Your task to perform on an android device: Open Wikipedia Image 0: 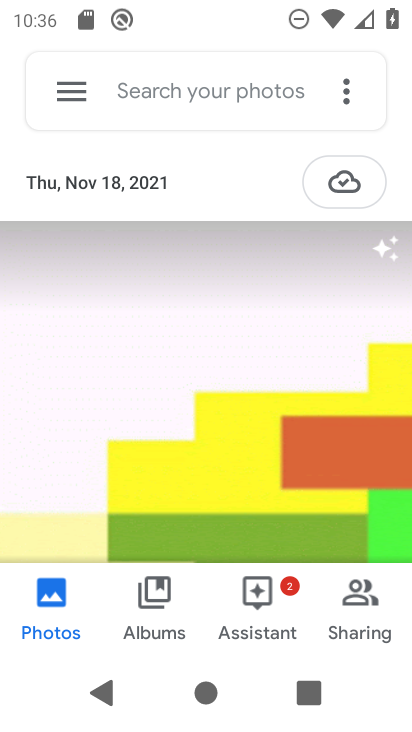
Step 0: press home button
Your task to perform on an android device: Open Wikipedia Image 1: 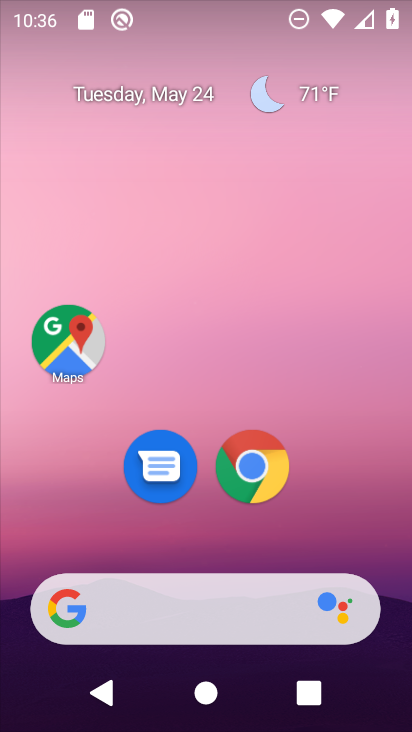
Step 1: drag from (218, 539) to (317, 11)
Your task to perform on an android device: Open Wikipedia Image 2: 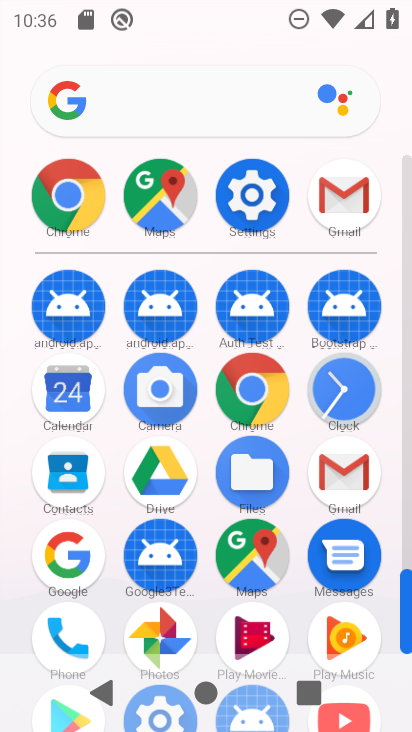
Step 2: click (241, 404)
Your task to perform on an android device: Open Wikipedia Image 3: 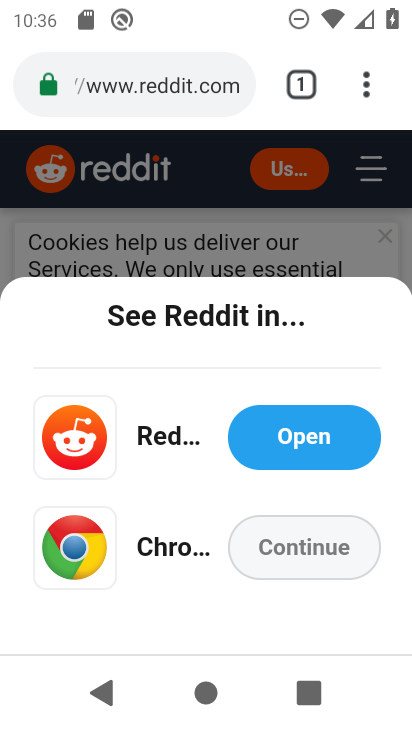
Step 3: click (187, 82)
Your task to perform on an android device: Open Wikipedia Image 4: 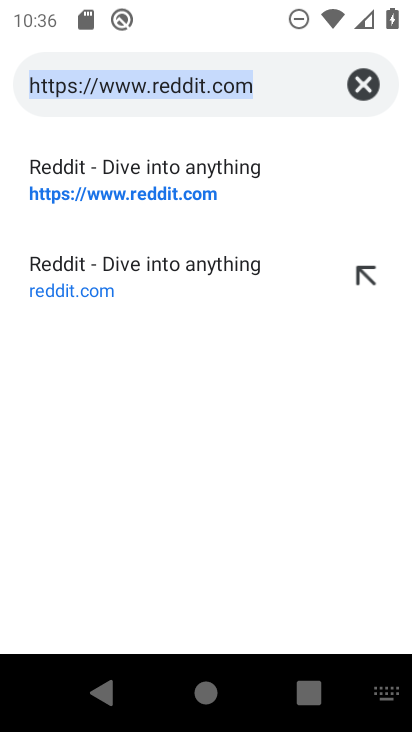
Step 4: type "wikipedia"
Your task to perform on an android device: Open Wikipedia Image 5: 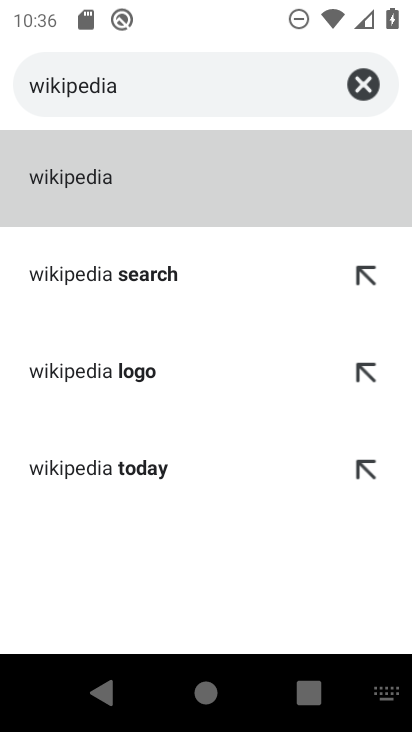
Step 5: click (145, 272)
Your task to perform on an android device: Open Wikipedia Image 6: 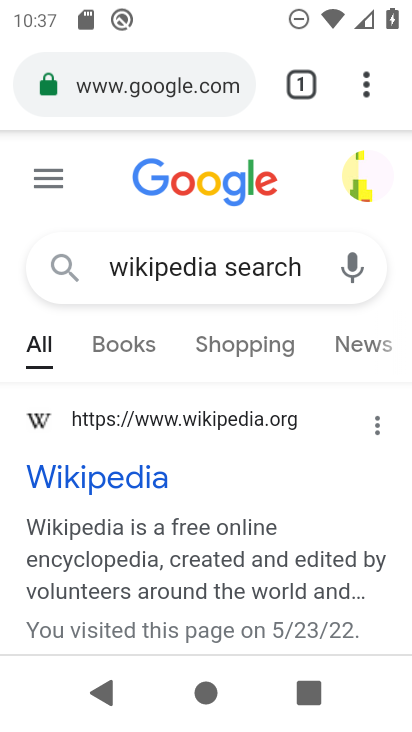
Step 6: task complete